Your task to perform on an android device: turn off location history Image 0: 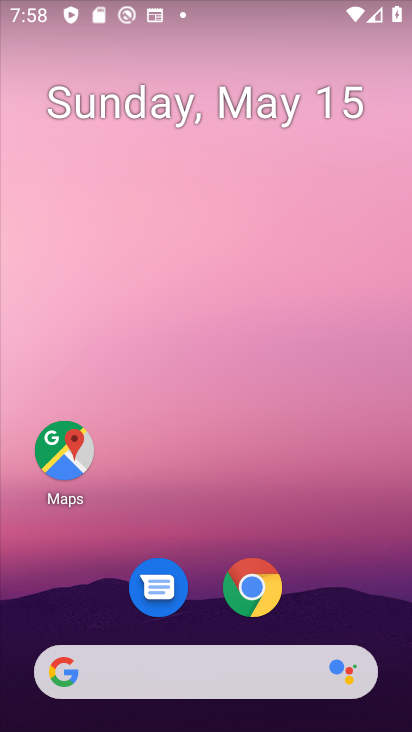
Step 0: drag from (183, 605) to (180, 279)
Your task to perform on an android device: turn off location history Image 1: 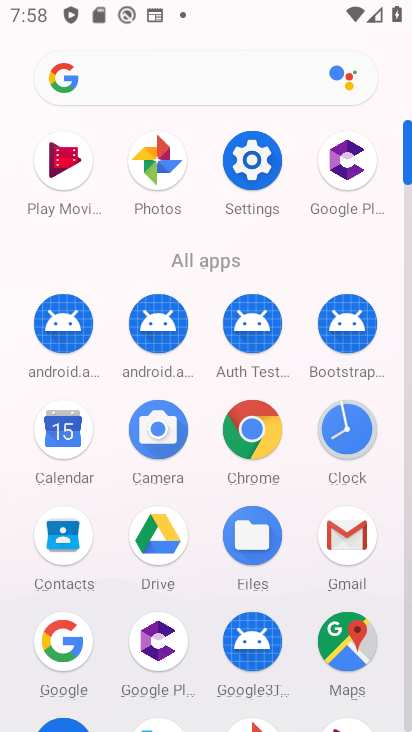
Step 1: click (256, 159)
Your task to perform on an android device: turn off location history Image 2: 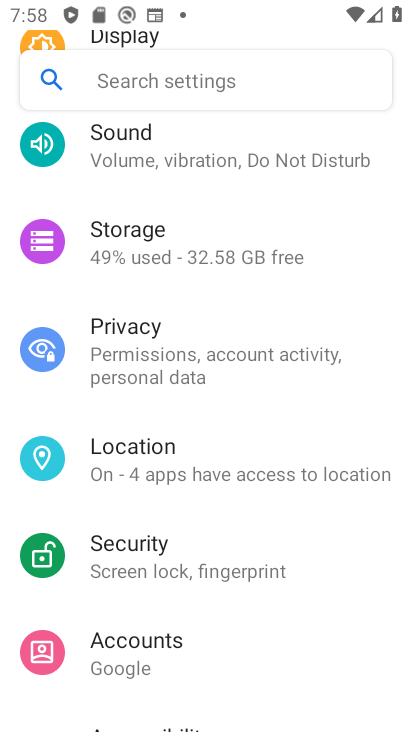
Step 2: click (177, 449)
Your task to perform on an android device: turn off location history Image 3: 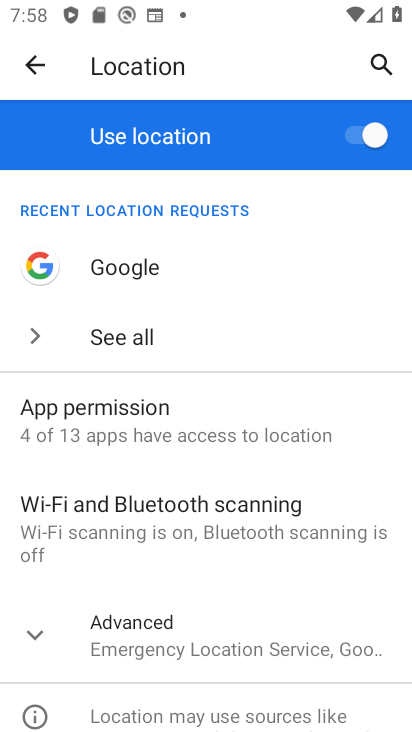
Step 3: click (39, 629)
Your task to perform on an android device: turn off location history Image 4: 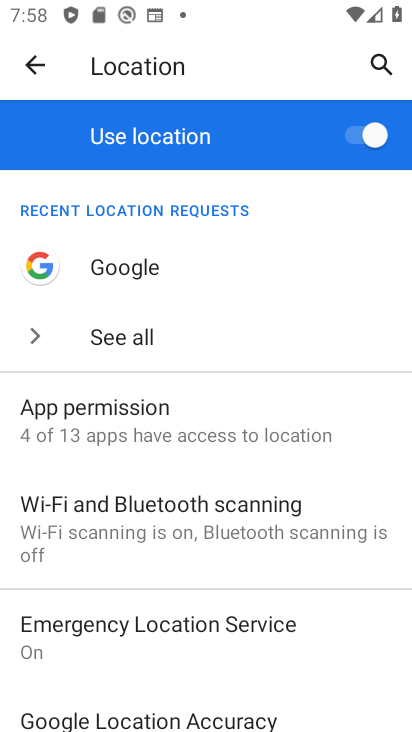
Step 4: drag from (147, 651) to (213, 312)
Your task to perform on an android device: turn off location history Image 5: 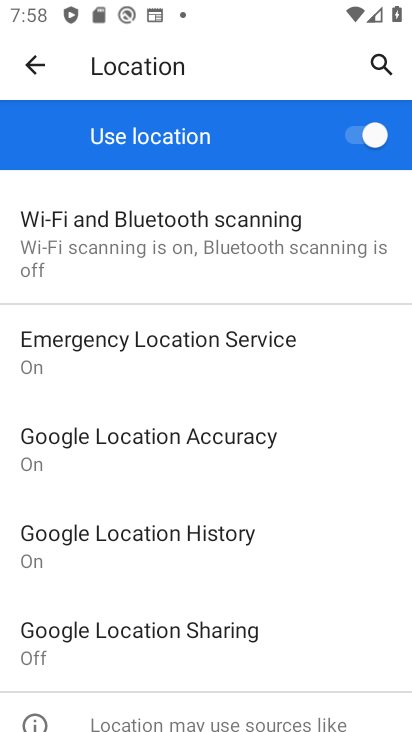
Step 5: click (174, 535)
Your task to perform on an android device: turn off location history Image 6: 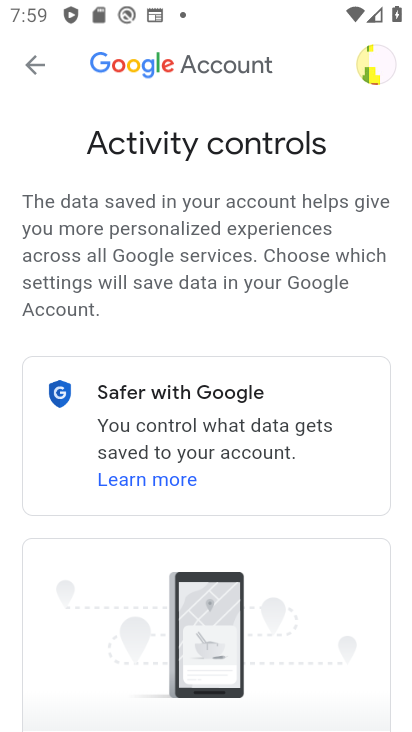
Step 6: drag from (236, 546) to (259, 229)
Your task to perform on an android device: turn off location history Image 7: 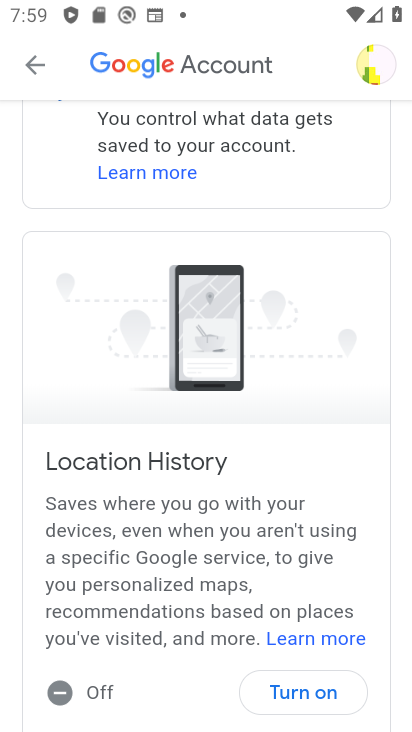
Step 7: click (75, 690)
Your task to perform on an android device: turn off location history Image 8: 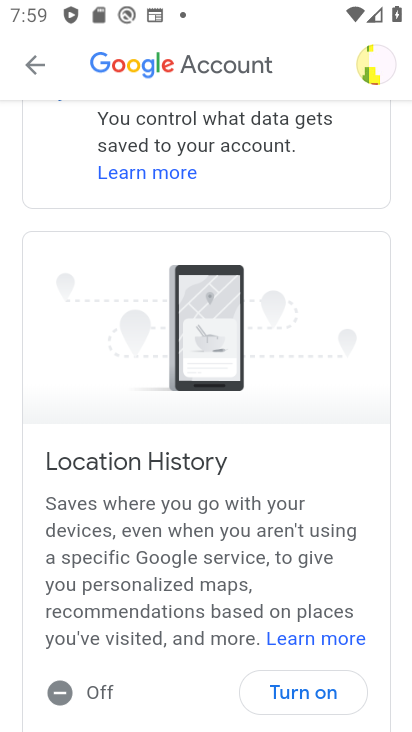
Step 8: click (308, 697)
Your task to perform on an android device: turn off location history Image 9: 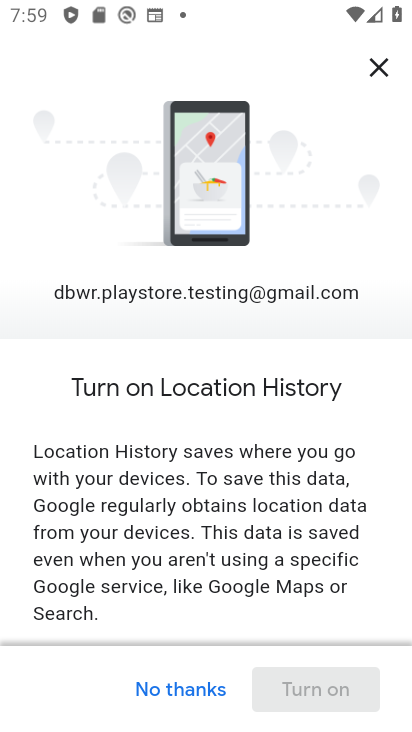
Step 9: click (212, 692)
Your task to perform on an android device: turn off location history Image 10: 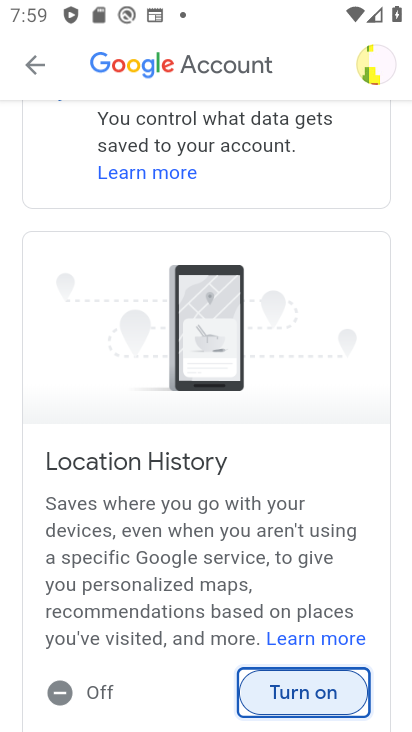
Step 10: task complete